Your task to perform on an android device: turn on airplane mode Image 0: 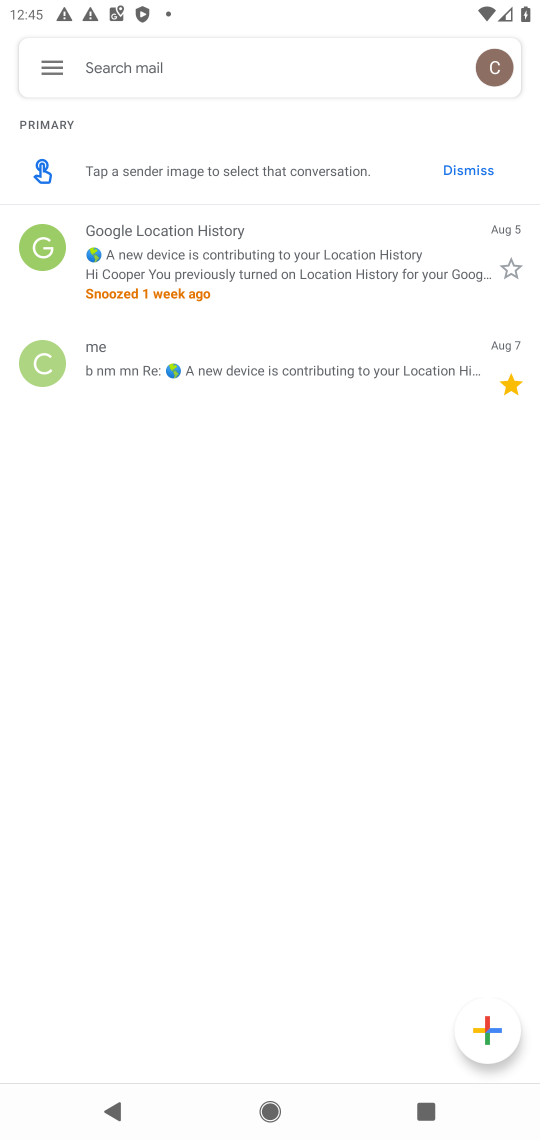
Step 0: press home button
Your task to perform on an android device: turn on airplane mode Image 1: 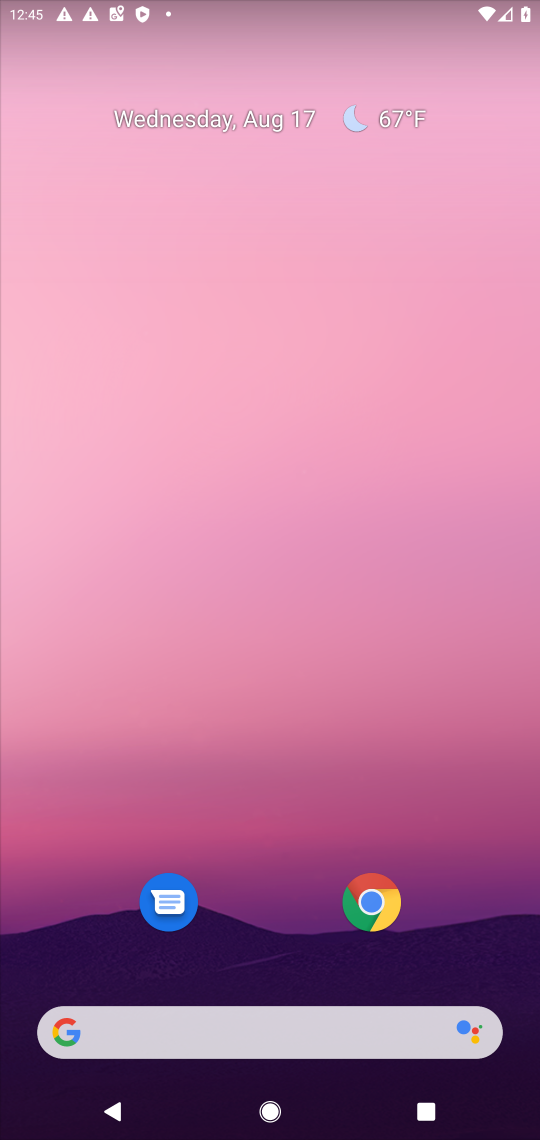
Step 1: drag from (250, 902) to (329, 0)
Your task to perform on an android device: turn on airplane mode Image 2: 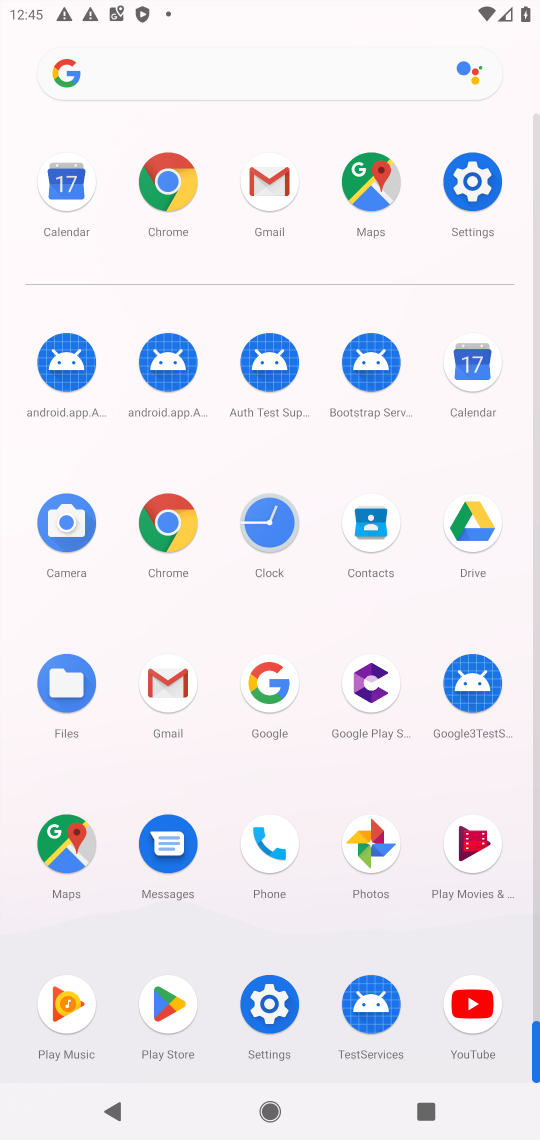
Step 2: click (273, 996)
Your task to perform on an android device: turn on airplane mode Image 3: 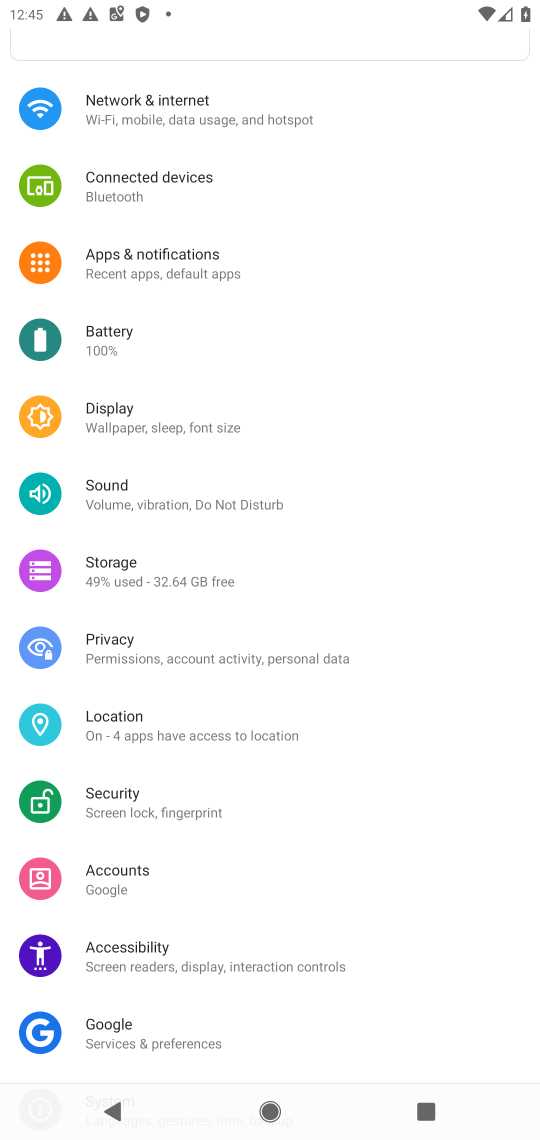
Step 3: click (231, 112)
Your task to perform on an android device: turn on airplane mode Image 4: 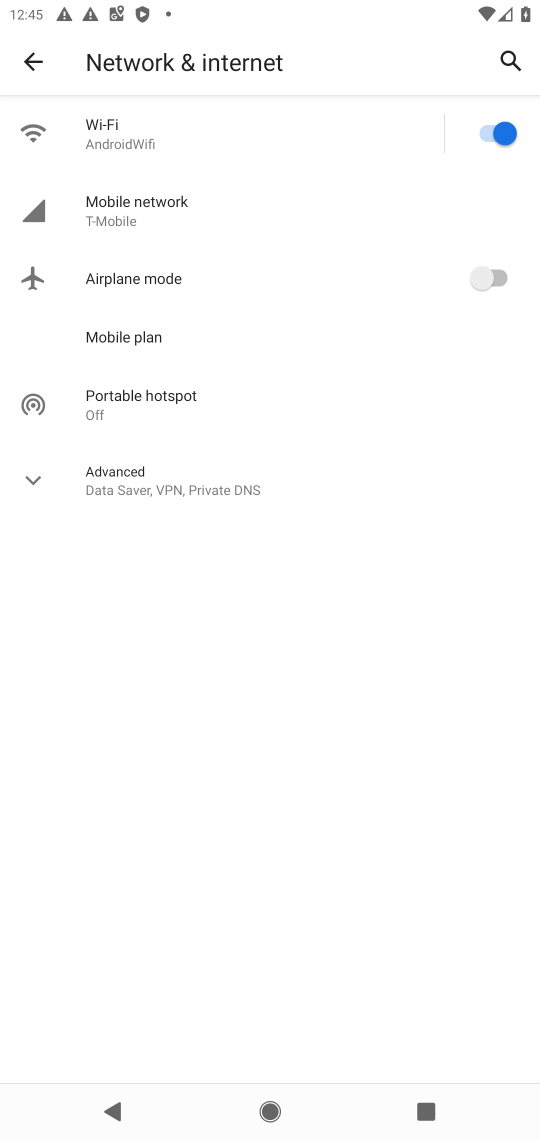
Step 4: click (517, 264)
Your task to perform on an android device: turn on airplane mode Image 5: 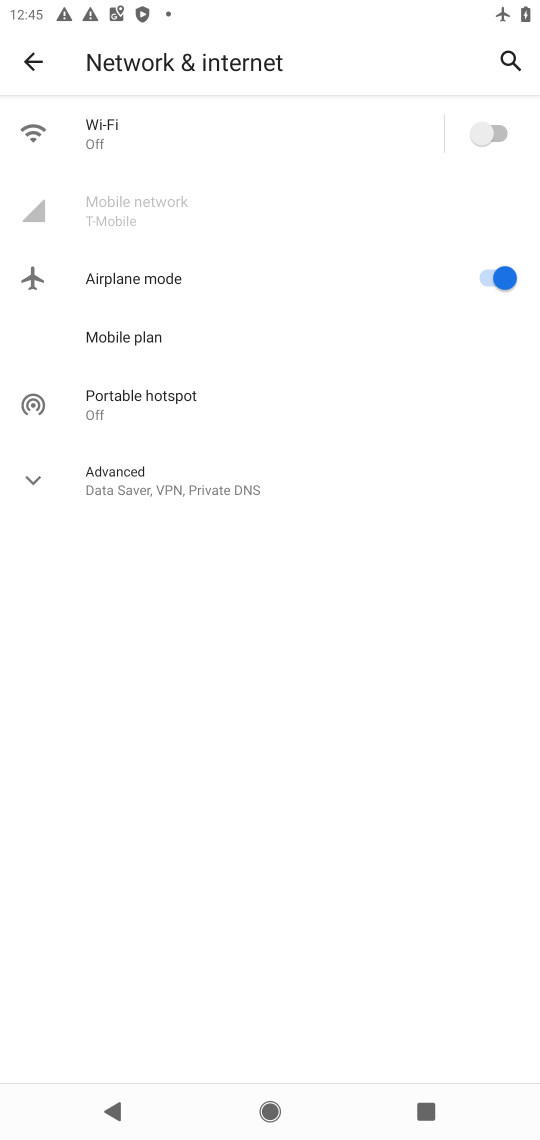
Step 5: task complete